Your task to perform on an android device: Open privacy settings Image 0: 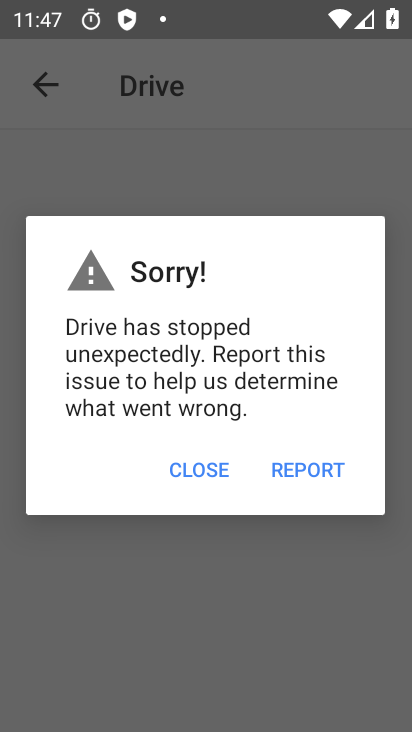
Step 0: drag from (387, 590) to (411, 487)
Your task to perform on an android device: Open privacy settings Image 1: 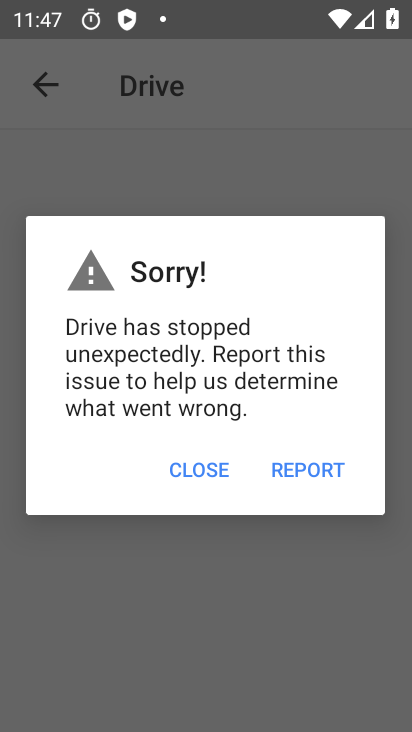
Step 1: press home button
Your task to perform on an android device: Open privacy settings Image 2: 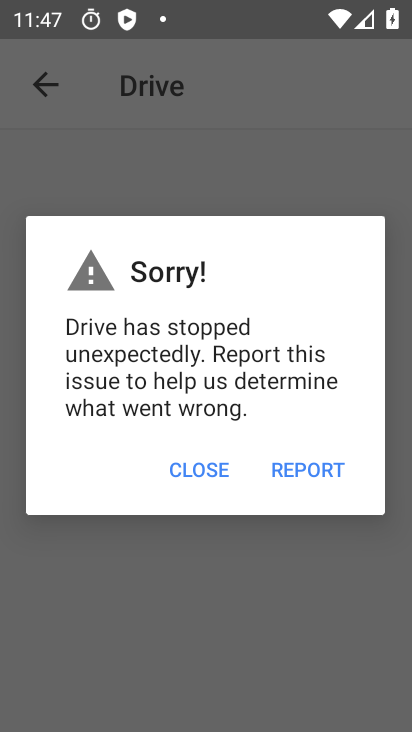
Step 2: drag from (411, 487) to (410, 578)
Your task to perform on an android device: Open privacy settings Image 3: 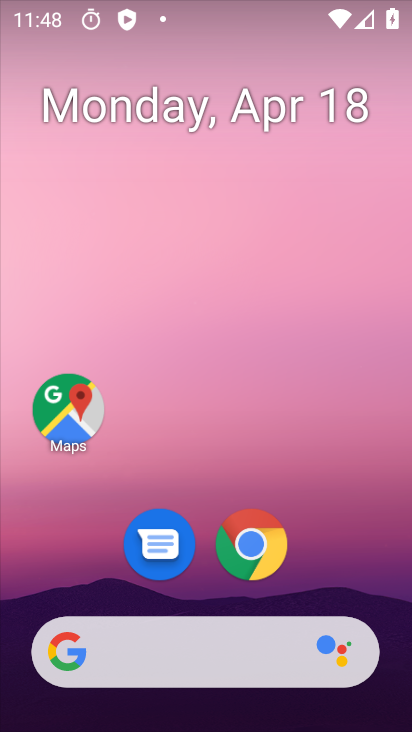
Step 3: drag from (391, 578) to (408, 89)
Your task to perform on an android device: Open privacy settings Image 4: 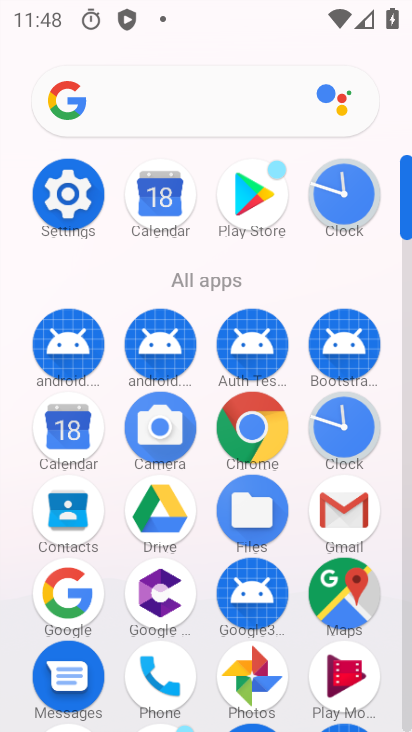
Step 4: click (56, 196)
Your task to perform on an android device: Open privacy settings Image 5: 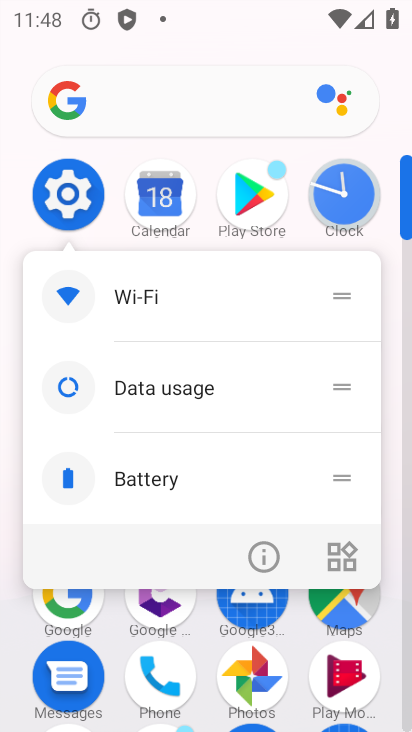
Step 5: click (62, 198)
Your task to perform on an android device: Open privacy settings Image 6: 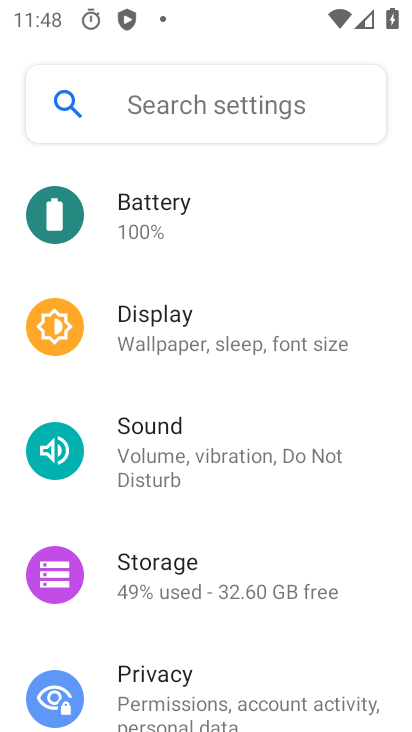
Step 6: click (160, 689)
Your task to perform on an android device: Open privacy settings Image 7: 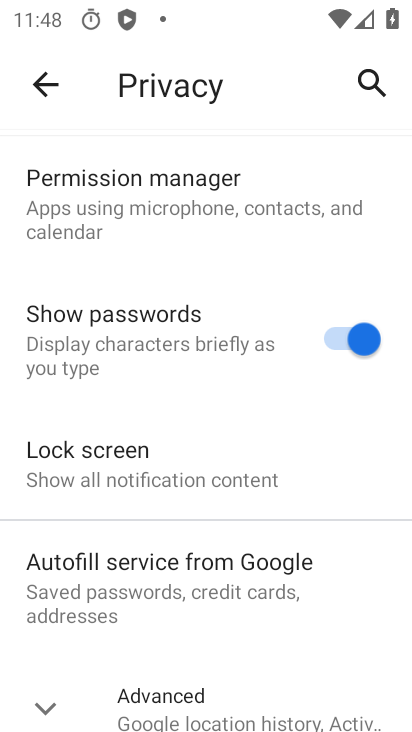
Step 7: drag from (179, 677) to (199, 381)
Your task to perform on an android device: Open privacy settings Image 8: 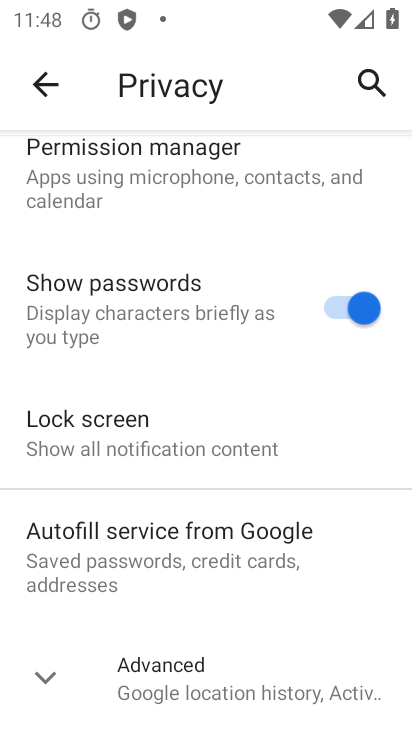
Step 8: click (28, 676)
Your task to perform on an android device: Open privacy settings Image 9: 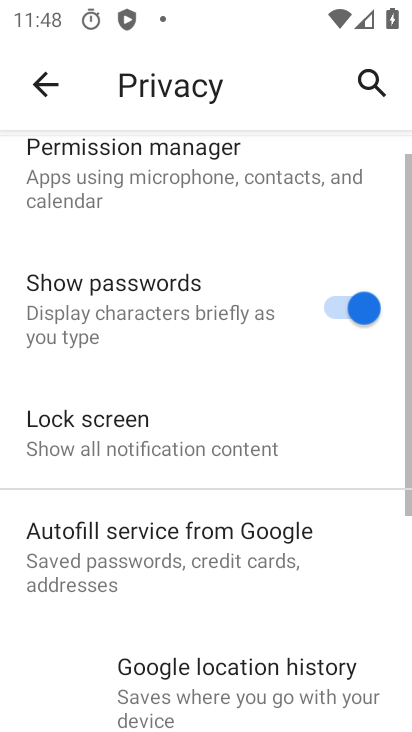
Step 9: task complete